Your task to perform on an android device: open device folders in google photos Image 0: 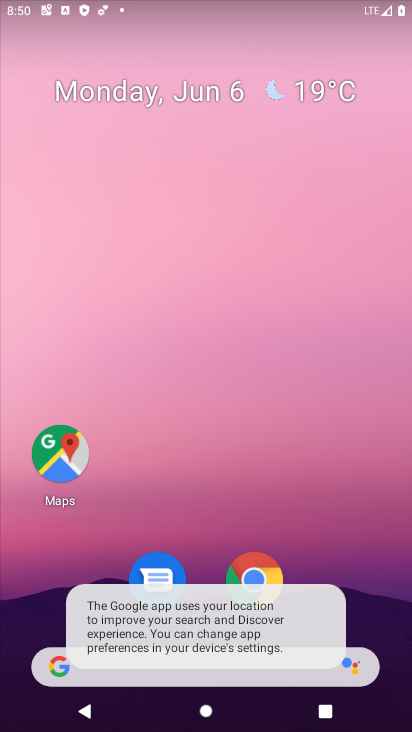
Step 0: drag from (370, 526) to (367, 6)
Your task to perform on an android device: open device folders in google photos Image 1: 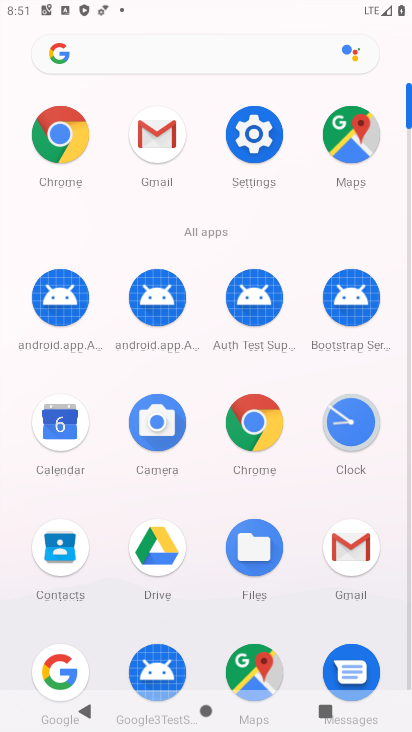
Step 1: drag from (402, 459) to (409, 186)
Your task to perform on an android device: open device folders in google photos Image 2: 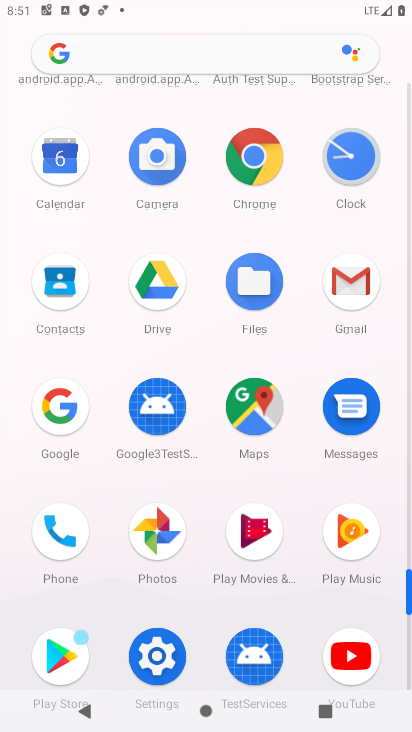
Step 2: click (163, 580)
Your task to perform on an android device: open device folders in google photos Image 3: 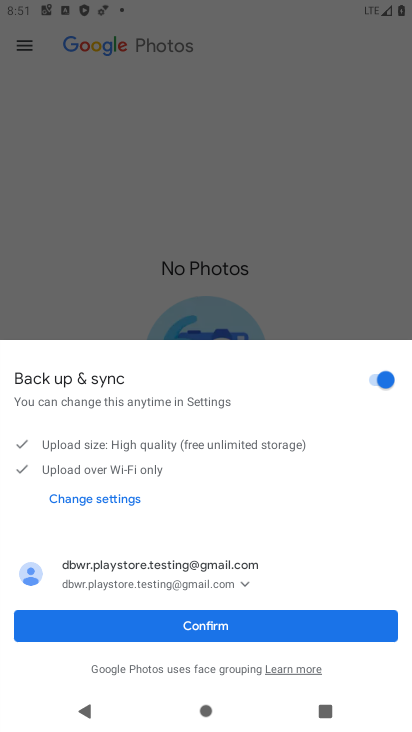
Step 3: click (196, 627)
Your task to perform on an android device: open device folders in google photos Image 4: 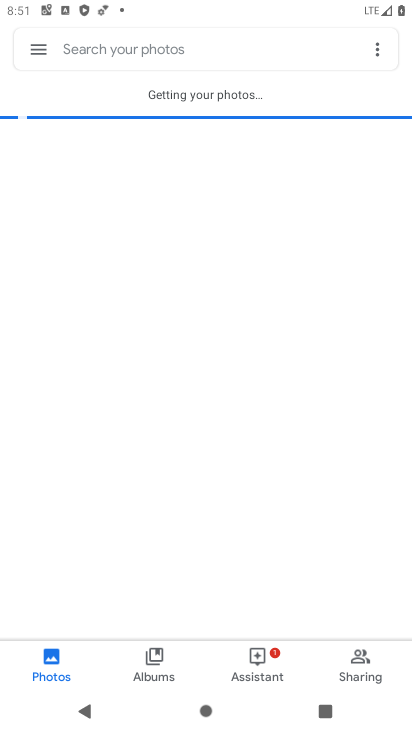
Step 4: click (36, 52)
Your task to perform on an android device: open device folders in google photos Image 5: 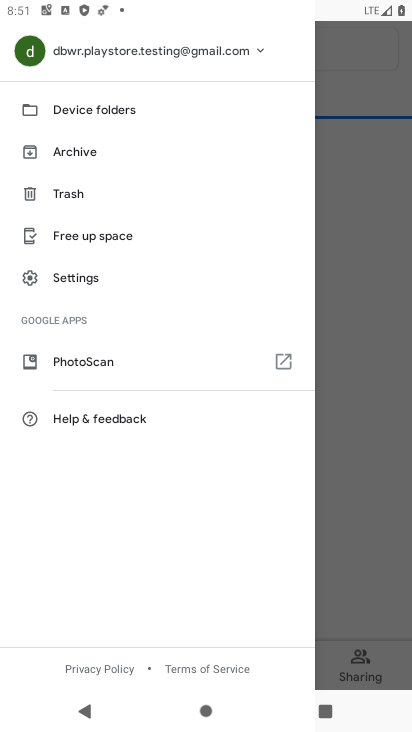
Step 5: click (89, 118)
Your task to perform on an android device: open device folders in google photos Image 6: 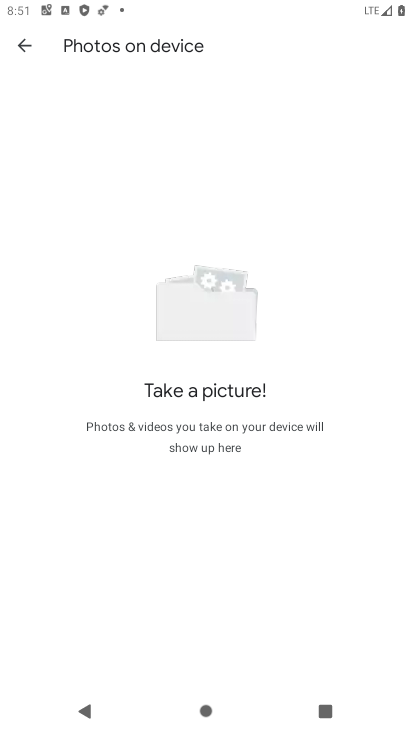
Step 6: click (31, 54)
Your task to perform on an android device: open device folders in google photos Image 7: 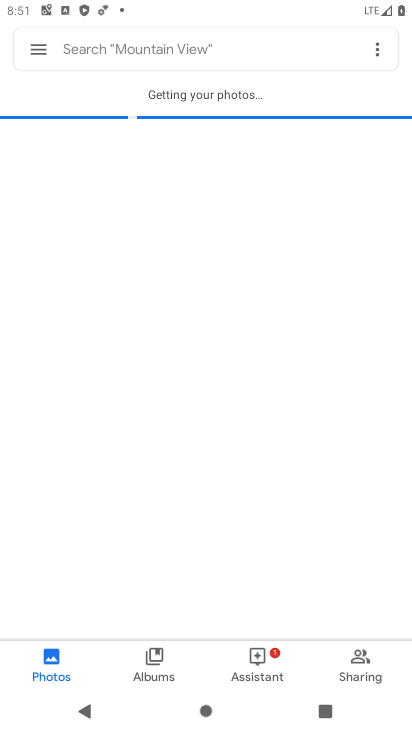
Step 7: click (31, 56)
Your task to perform on an android device: open device folders in google photos Image 8: 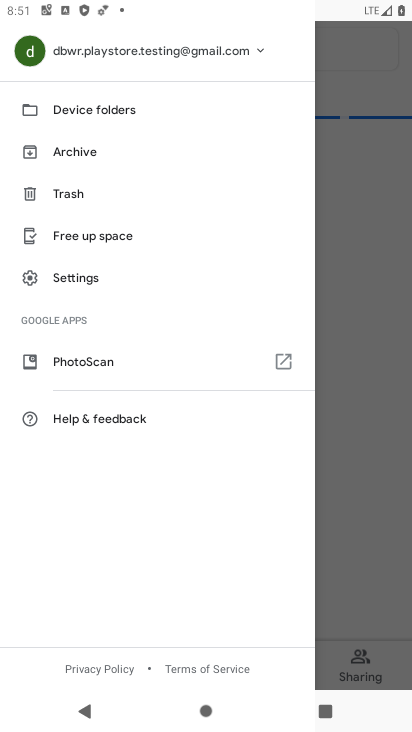
Step 8: click (19, 112)
Your task to perform on an android device: open device folders in google photos Image 9: 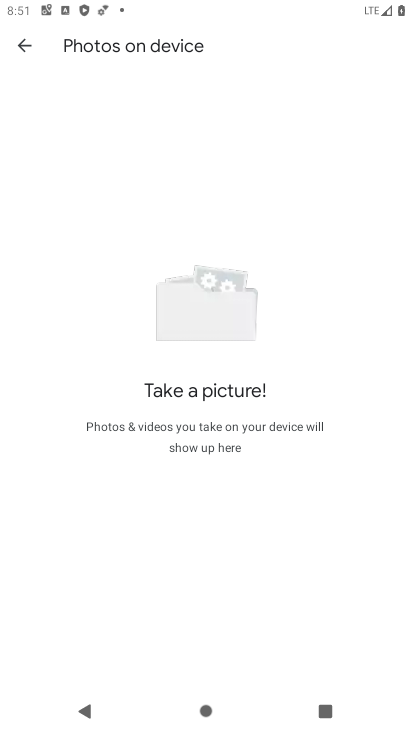
Step 9: task complete